Your task to perform on an android device: Open Chrome and go to settings Image 0: 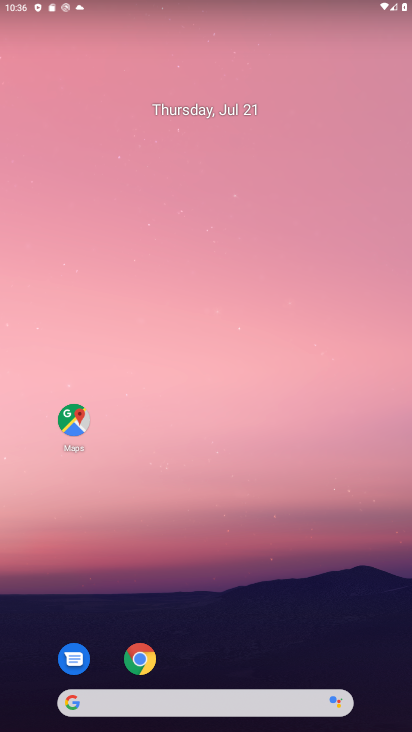
Step 0: task complete